Your task to perform on an android device: toggle show notifications on the lock screen Image 0: 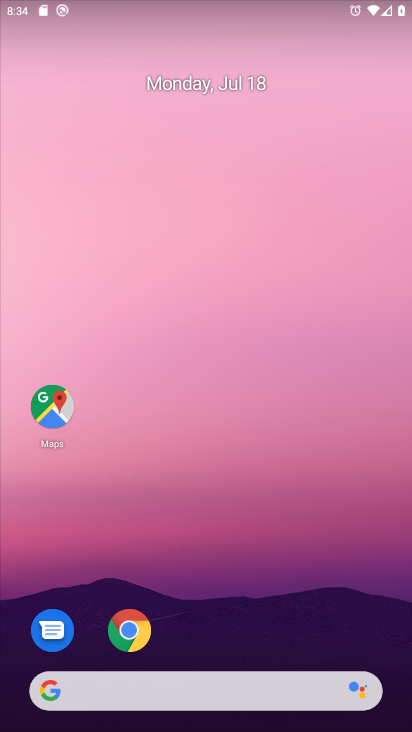
Step 0: drag from (215, 233) to (222, 200)
Your task to perform on an android device: toggle show notifications on the lock screen Image 1: 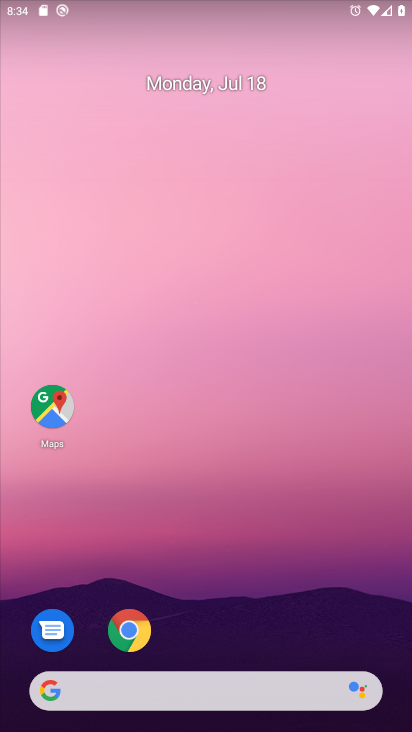
Step 1: drag from (209, 649) to (225, 76)
Your task to perform on an android device: toggle show notifications on the lock screen Image 2: 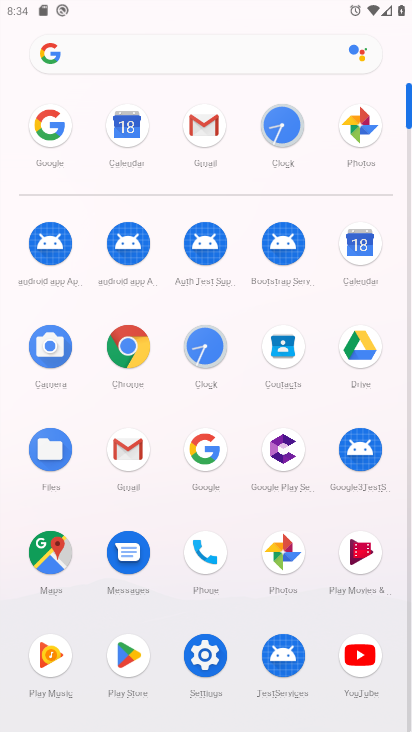
Step 2: click (187, 644)
Your task to perform on an android device: toggle show notifications on the lock screen Image 3: 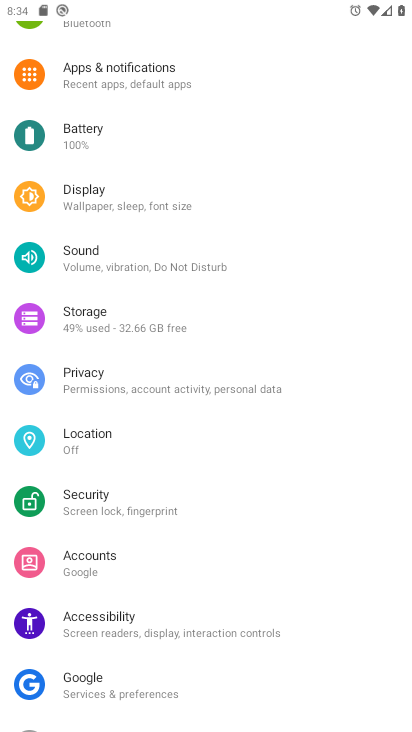
Step 3: click (184, 87)
Your task to perform on an android device: toggle show notifications on the lock screen Image 4: 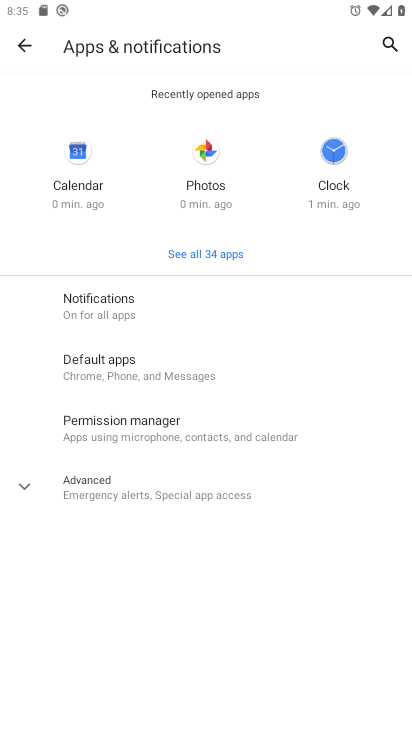
Step 4: click (138, 316)
Your task to perform on an android device: toggle show notifications on the lock screen Image 5: 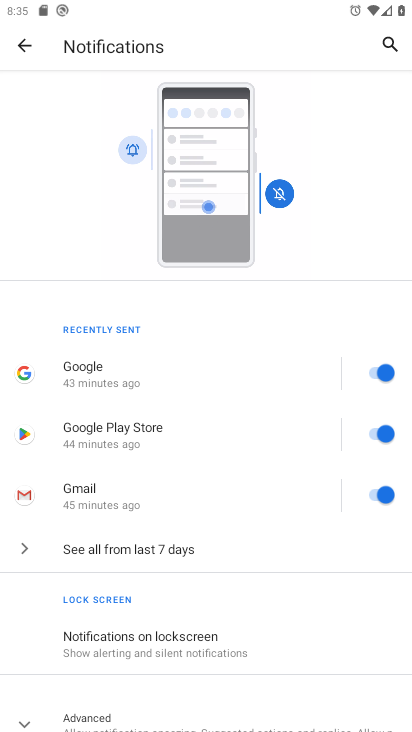
Step 5: click (187, 640)
Your task to perform on an android device: toggle show notifications on the lock screen Image 6: 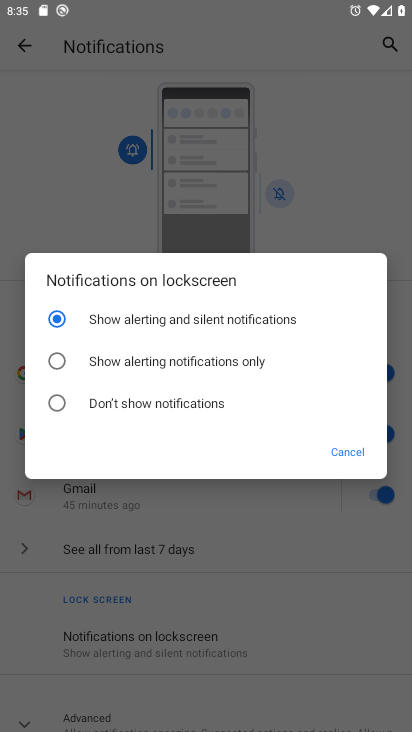
Step 6: click (163, 400)
Your task to perform on an android device: toggle show notifications on the lock screen Image 7: 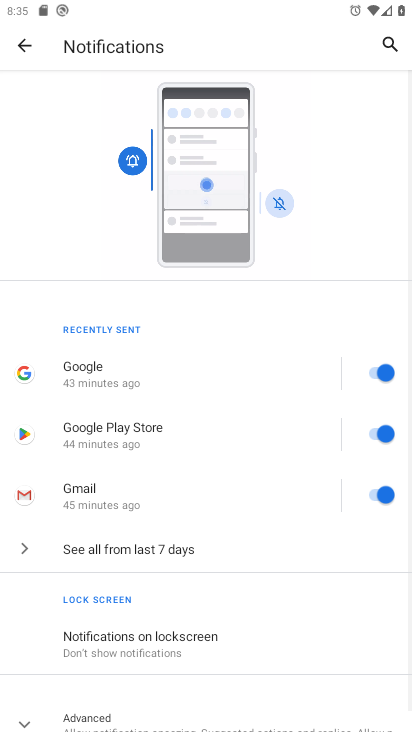
Step 7: task complete